Your task to perform on an android device: Go to Wikipedia Image 0: 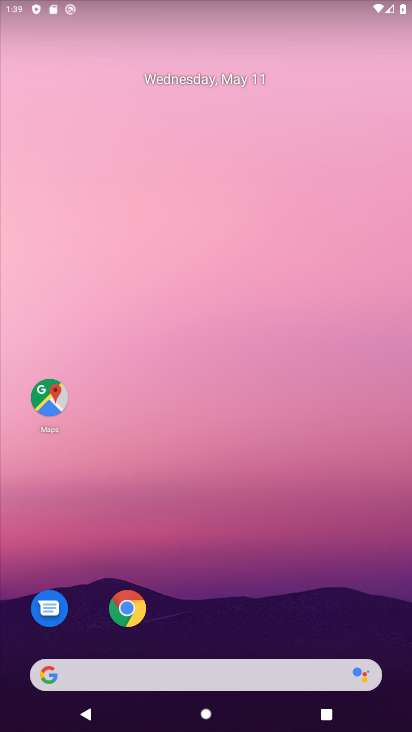
Step 0: click (155, 672)
Your task to perform on an android device: Go to Wikipedia Image 1: 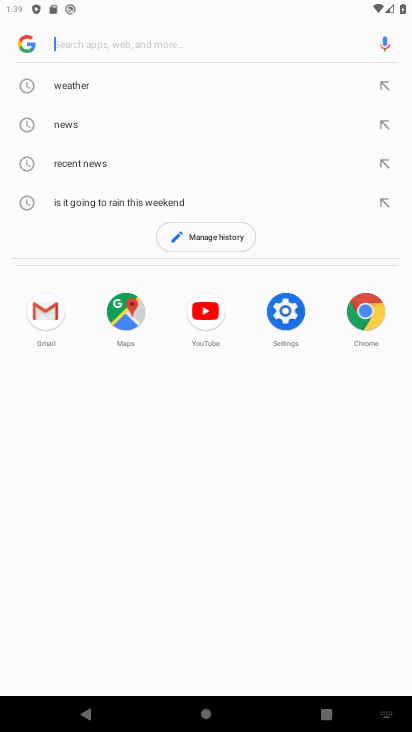
Step 1: press home button
Your task to perform on an android device: Go to Wikipedia Image 2: 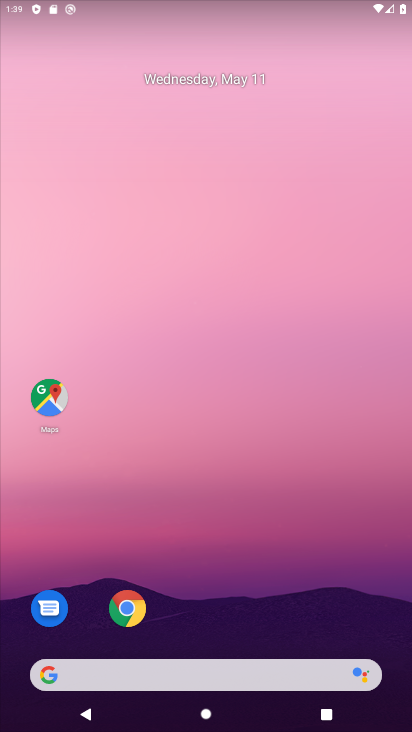
Step 2: click (139, 618)
Your task to perform on an android device: Go to Wikipedia Image 3: 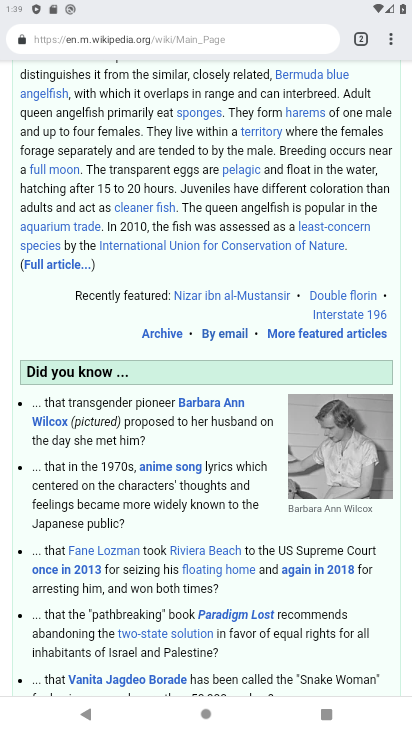
Step 3: task complete